Your task to perform on an android device: Open maps Image 0: 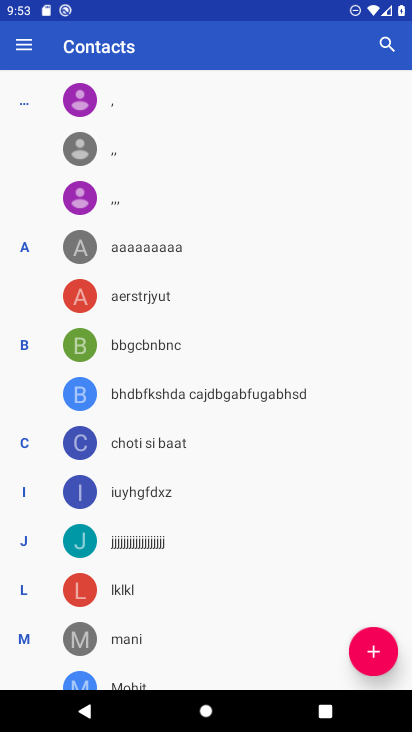
Step 0: press home button
Your task to perform on an android device: Open maps Image 1: 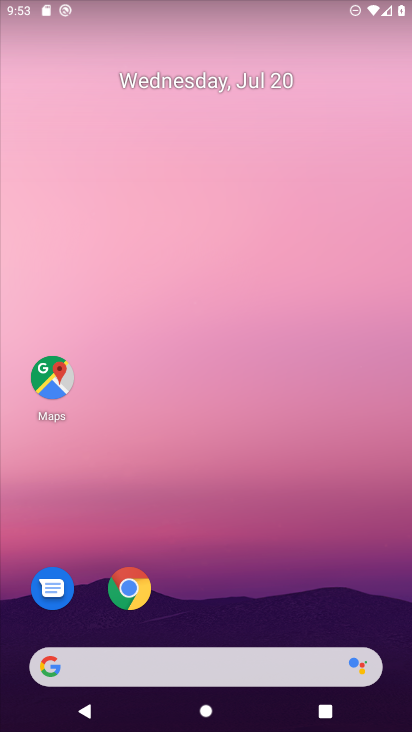
Step 1: click (33, 384)
Your task to perform on an android device: Open maps Image 2: 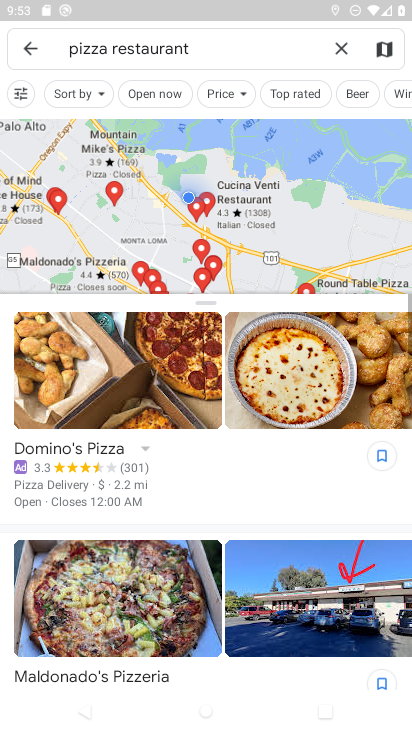
Step 2: task complete